Your task to perform on an android device: Open Android settings Image 0: 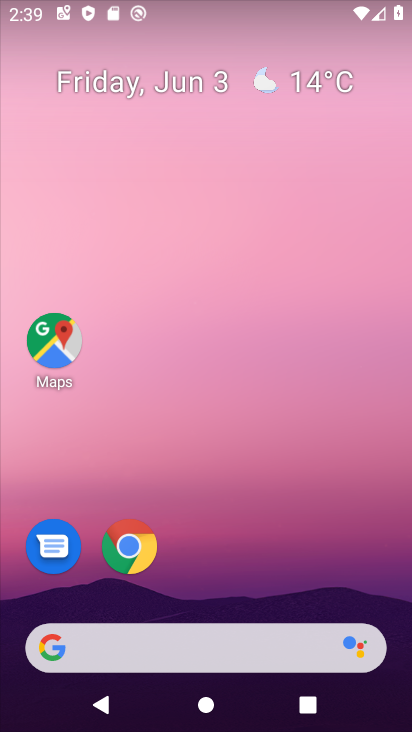
Step 0: drag from (322, 569) to (390, 0)
Your task to perform on an android device: Open Android settings Image 1: 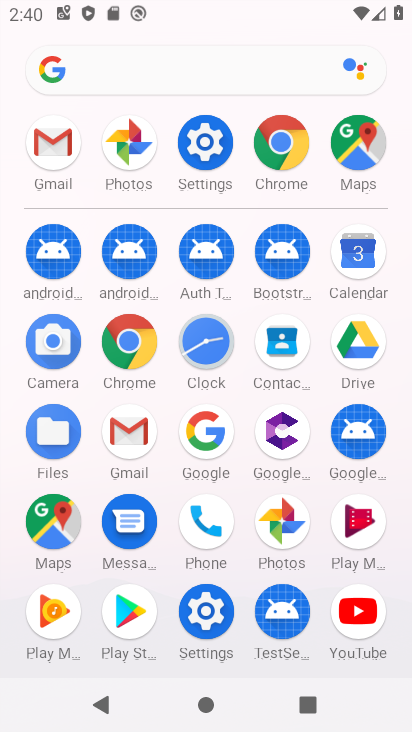
Step 1: click (201, 153)
Your task to perform on an android device: Open Android settings Image 2: 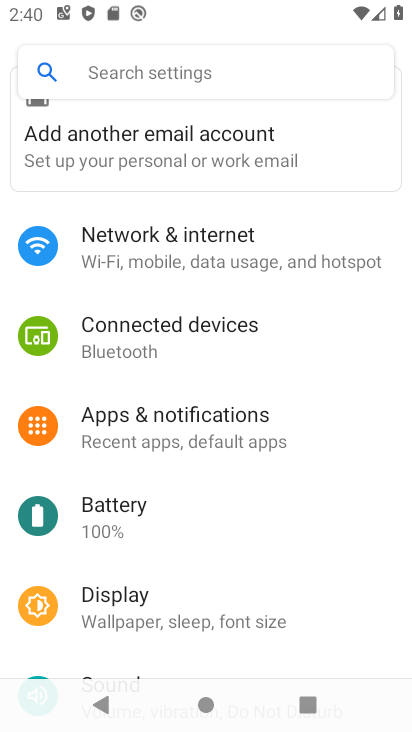
Step 2: drag from (226, 527) to (303, 147)
Your task to perform on an android device: Open Android settings Image 3: 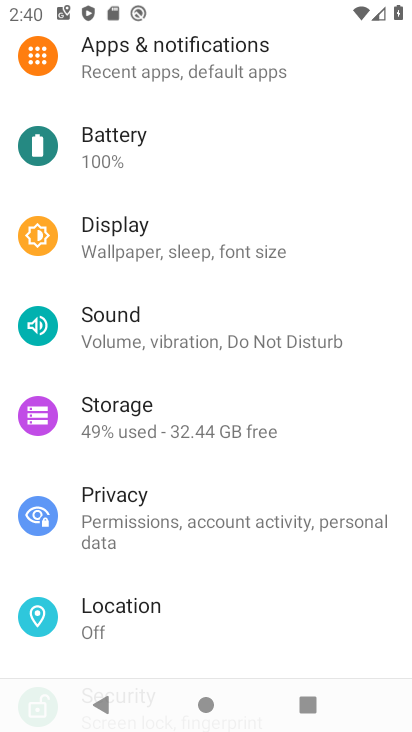
Step 3: click (278, 161)
Your task to perform on an android device: Open Android settings Image 4: 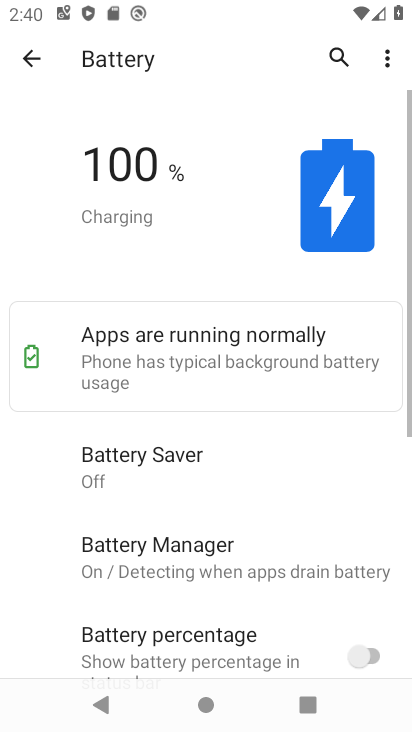
Step 4: task complete